Your task to perform on an android device: Open wifi settings Image 0: 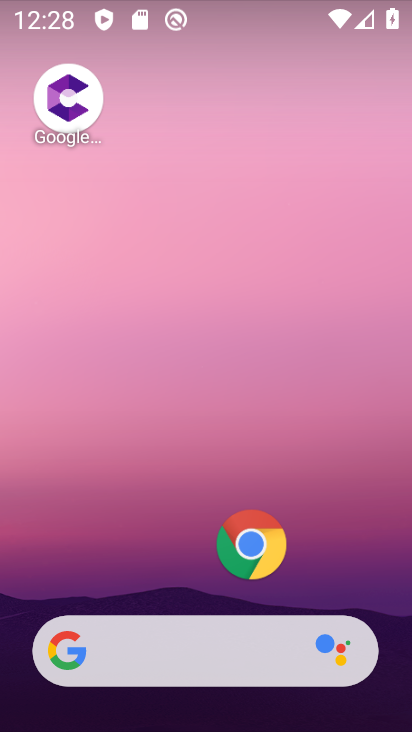
Step 0: drag from (160, 597) to (364, 706)
Your task to perform on an android device: Open wifi settings Image 1: 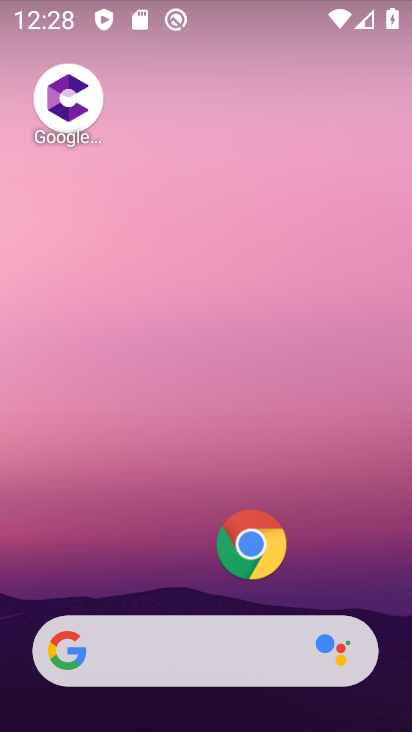
Step 1: drag from (211, 388) to (263, 7)
Your task to perform on an android device: Open wifi settings Image 2: 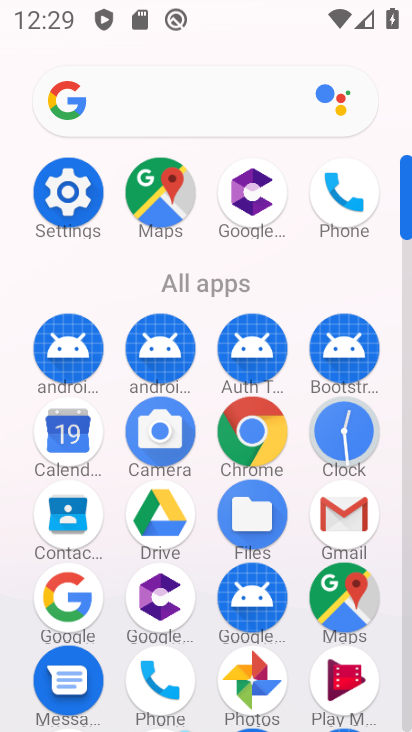
Step 2: click (73, 187)
Your task to perform on an android device: Open wifi settings Image 3: 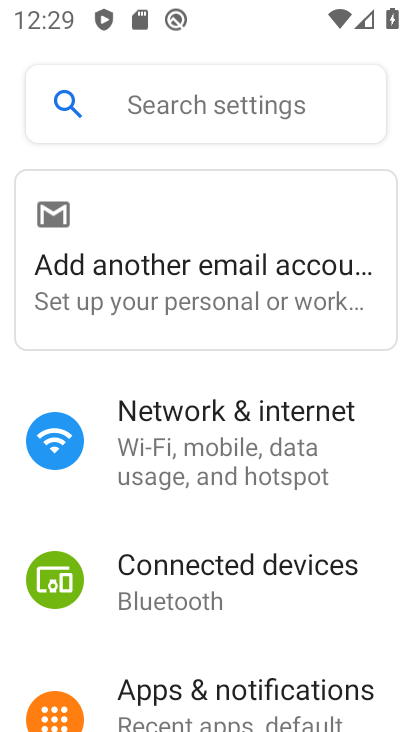
Step 3: click (218, 441)
Your task to perform on an android device: Open wifi settings Image 4: 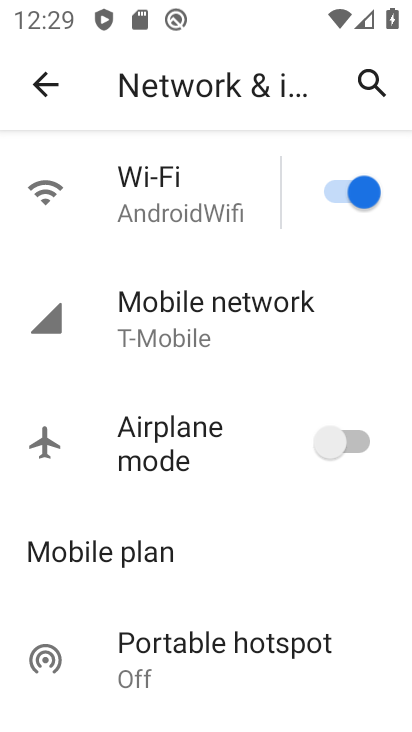
Step 4: click (220, 196)
Your task to perform on an android device: Open wifi settings Image 5: 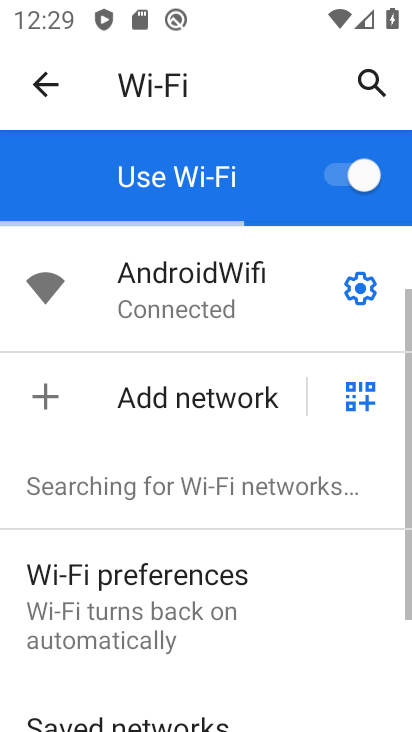
Step 5: task complete